Your task to perform on an android device: Go to Yahoo.com Image 0: 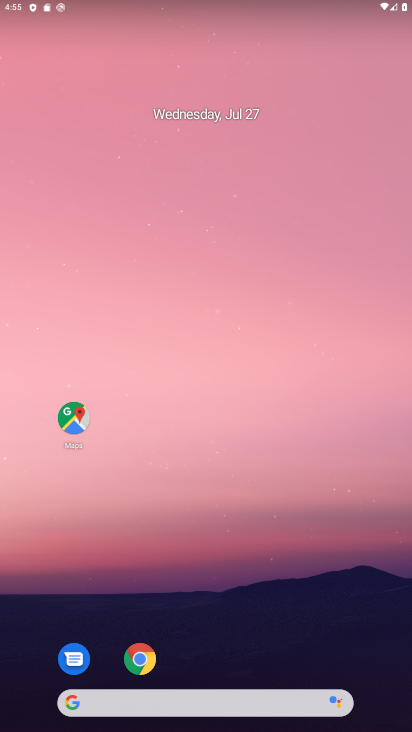
Step 0: drag from (231, 627) to (253, 78)
Your task to perform on an android device: Go to Yahoo.com Image 1: 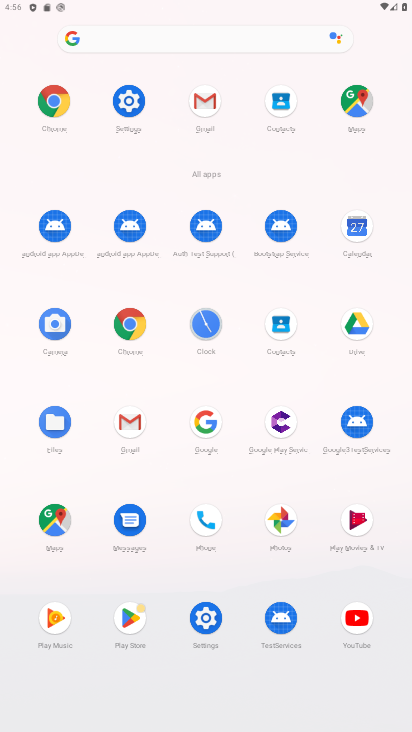
Step 1: click (120, 326)
Your task to perform on an android device: Go to Yahoo.com Image 2: 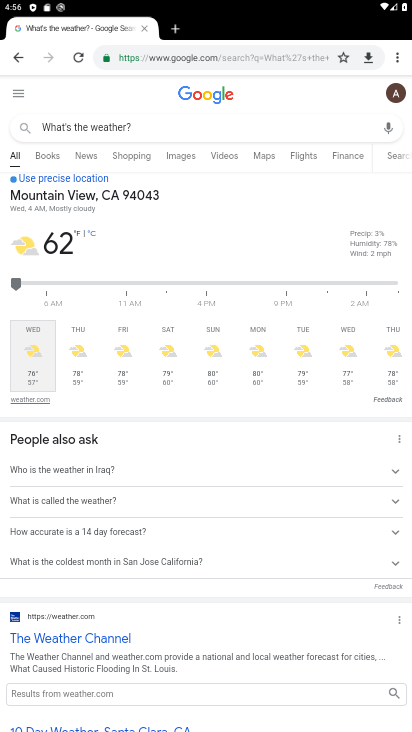
Step 2: click (193, 50)
Your task to perform on an android device: Go to Yahoo.com Image 3: 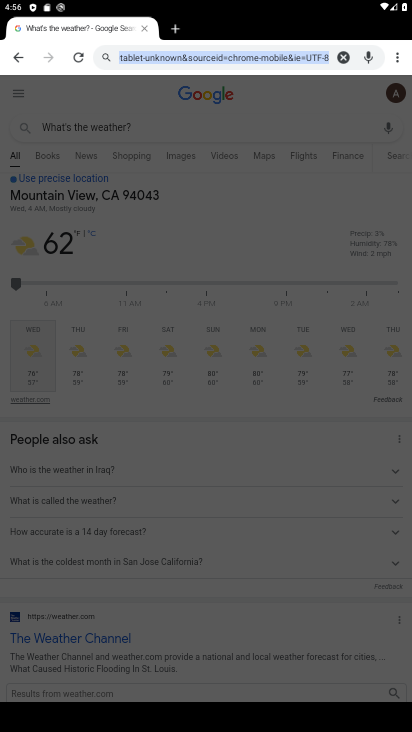
Step 3: type "Yahoo.com"
Your task to perform on an android device: Go to Yahoo.com Image 4: 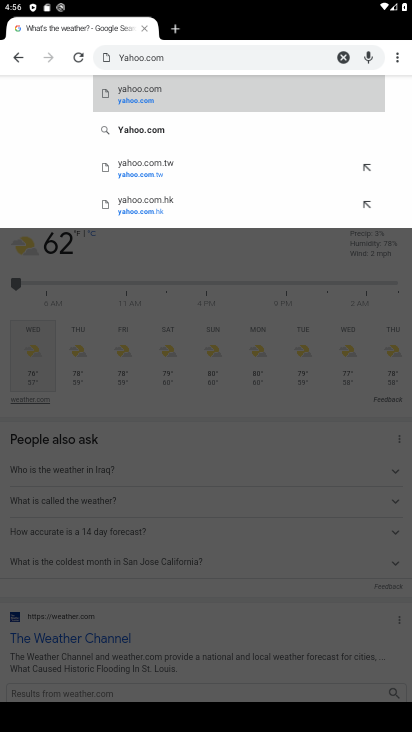
Step 4: click (130, 100)
Your task to perform on an android device: Go to Yahoo.com Image 5: 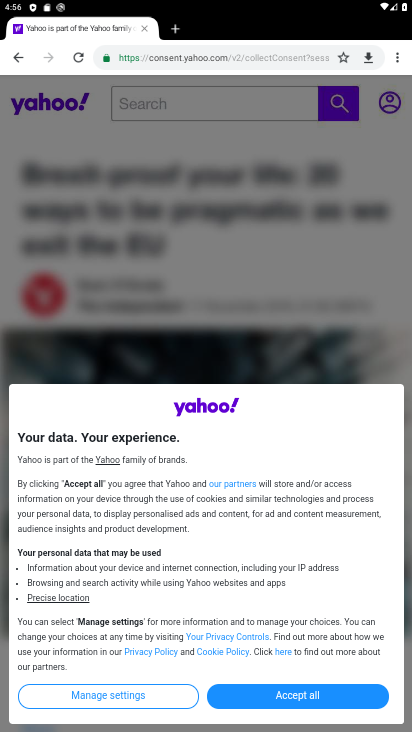
Step 5: click (282, 687)
Your task to perform on an android device: Go to Yahoo.com Image 6: 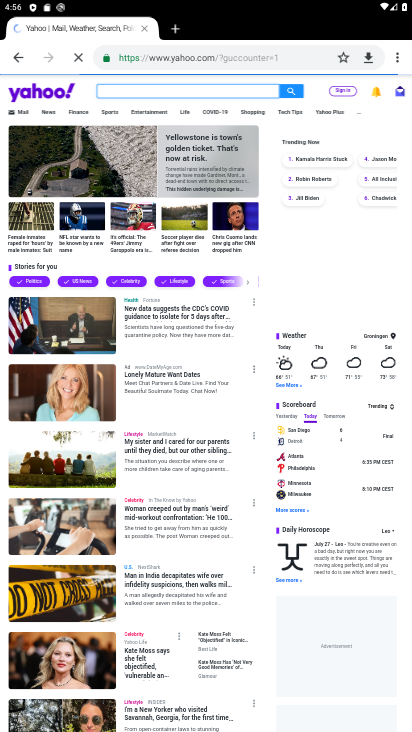
Step 6: task complete